Your task to perform on an android device: What's the news? Image 0: 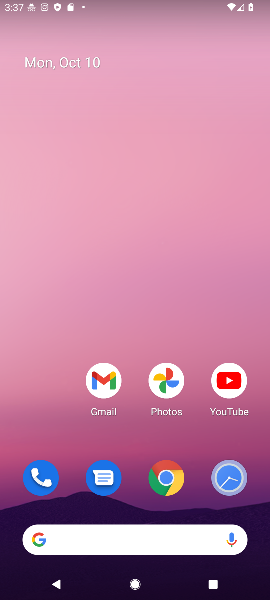
Step 0: click (77, 534)
Your task to perform on an android device: What's the news? Image 1: 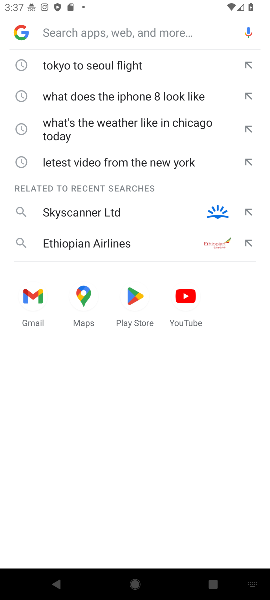
Step 1: click (25, 30)
Your task to perform on an android device: What's the news? Image 2: 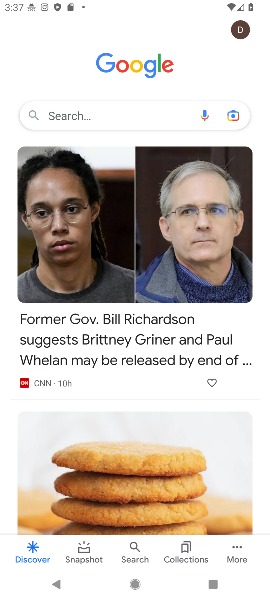
Step 2: task complete